Your task to perform on an android device: turn notification dots on Image 0: 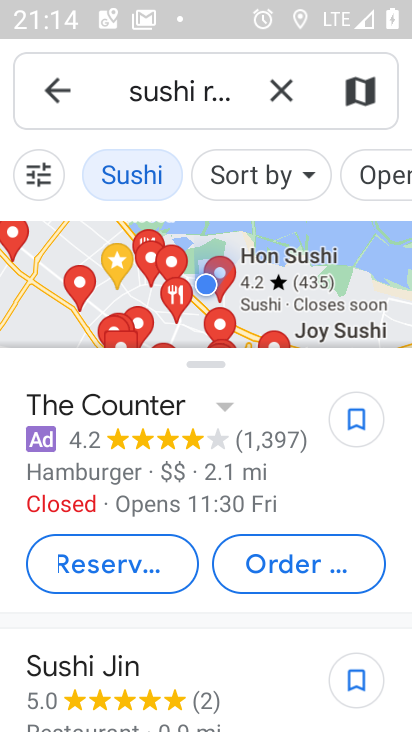
Step 0: press home button
Your task to perform on an android device: turn notification dots on Image 1: 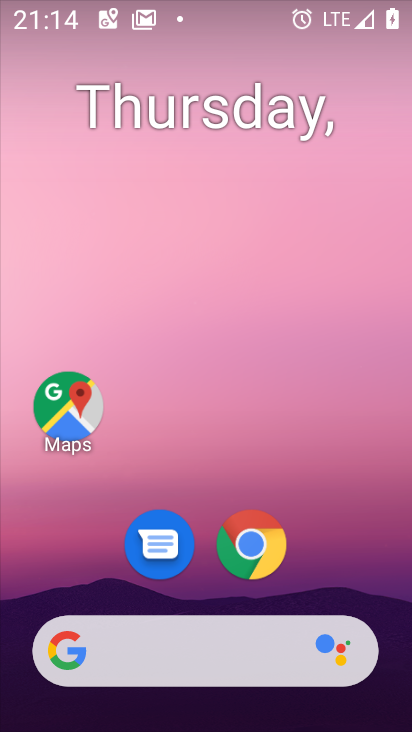
Step 1: drag from (208, 610) to (246, 10)
Your task to perform on an android device: turn notification dots on Image 2: 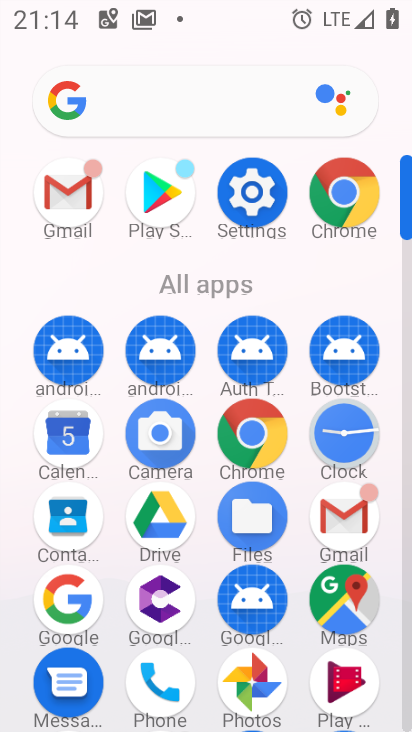
Step 2: click (264, 223)
Your task to perform on an android device: turn notification dots on Image 3: 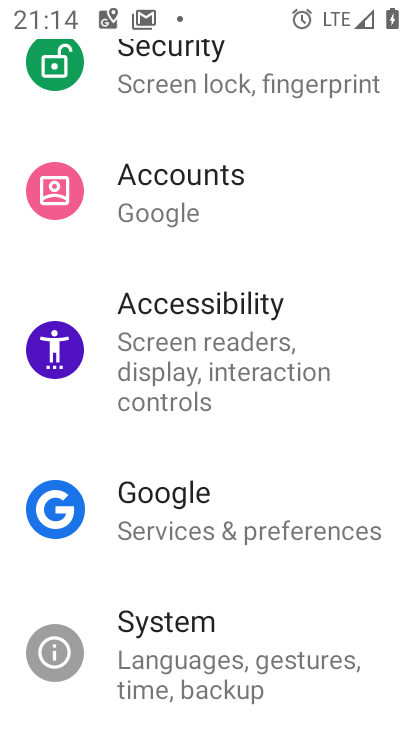
Step 3: drag from (261, 141) to (247, 486)
Your task to perform on an android device: turn notification dots on Image 4: 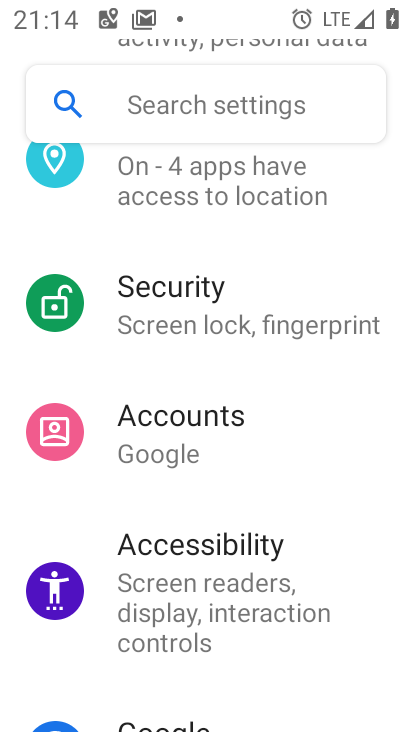
Step 4: drag from (246, 240) to (270, 614)
Your task to perform on an android device: turn notification dots on Image 5: 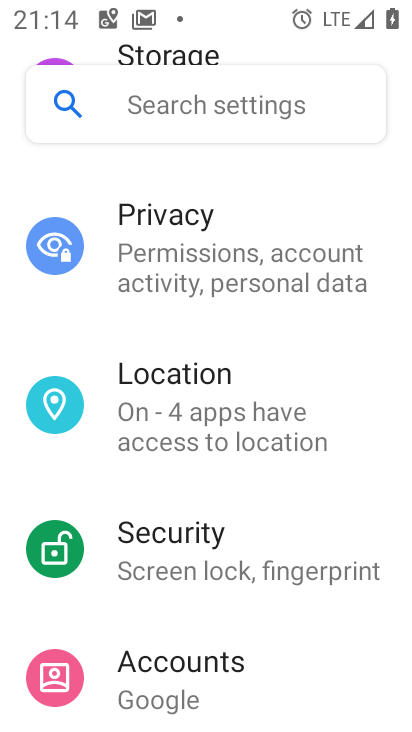
Step 5: drag from (189, 176) to (221, 630)
Your task to perform on an android device: turn notification dots on Image 6: 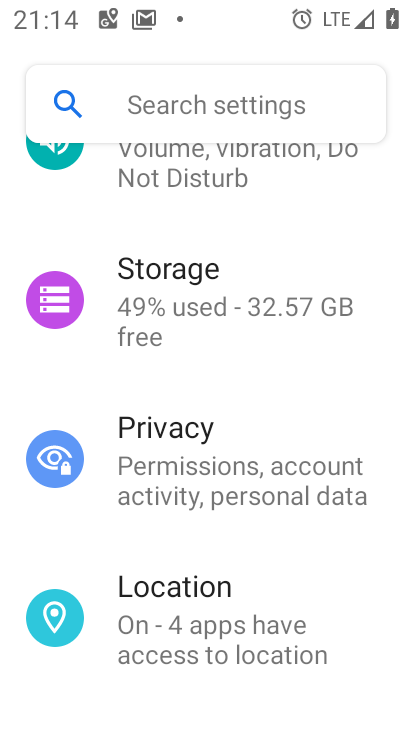
Step 6: drag from (167, 242) to (198, 621)
Your task to perform on an android device: turn notification dots on Image 7: 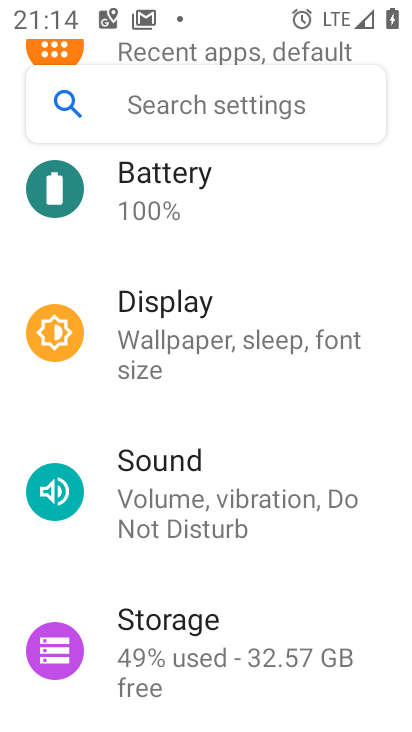
Step 7: drag from (162, 210) to (271, 610)
Your task to perform on an android device: turn notification dots on Image 8: 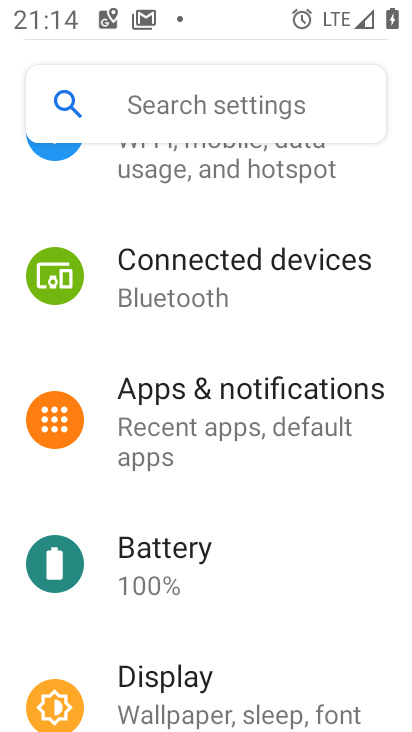
Step 8: click (231, 367)
Your task to perform on an android device: turn notification dots on Image 9: 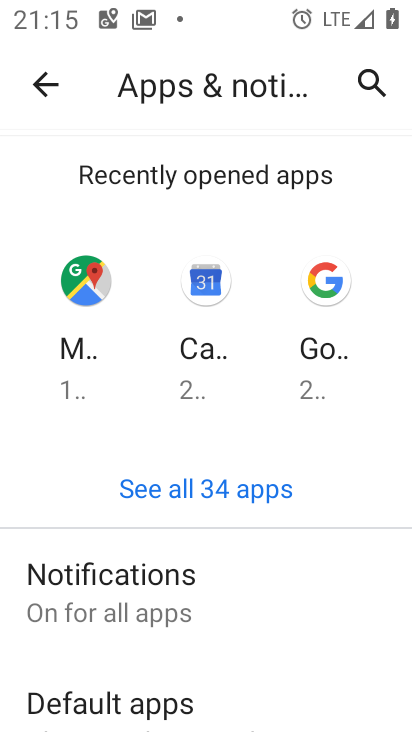
Step 9: click (113, 617)
Your task to perform on an android device: turn notification dots on Image 10: 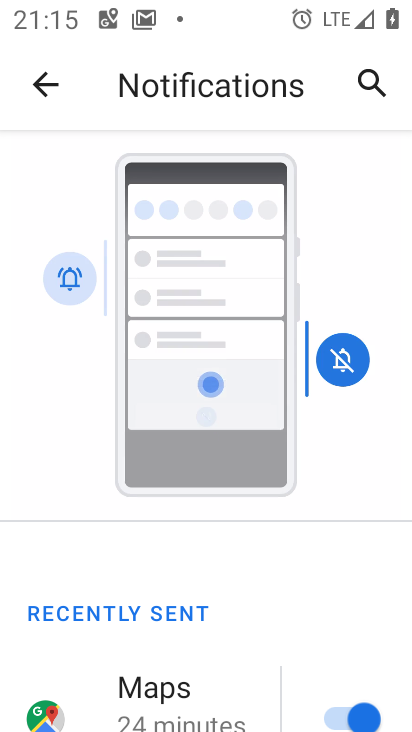
Step 10: drag from (113, 617) to (216, 153)
Your task to perform on an android device: turn notification dots on Image 11: 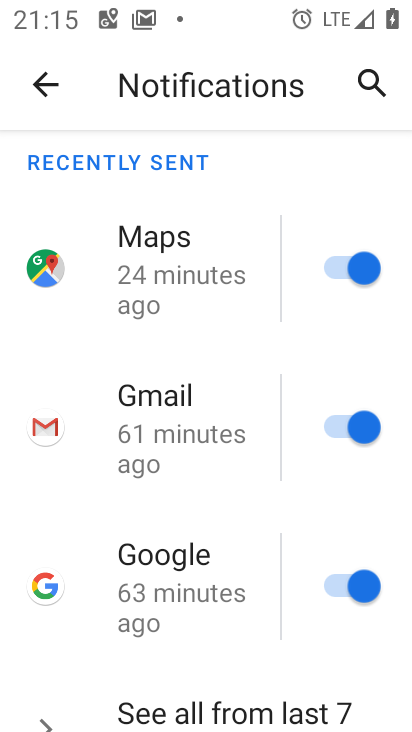
Step 11: drag from (226, 677) to (265, 3)
Your task to perform on an android device: turn notification dots on Image 12: 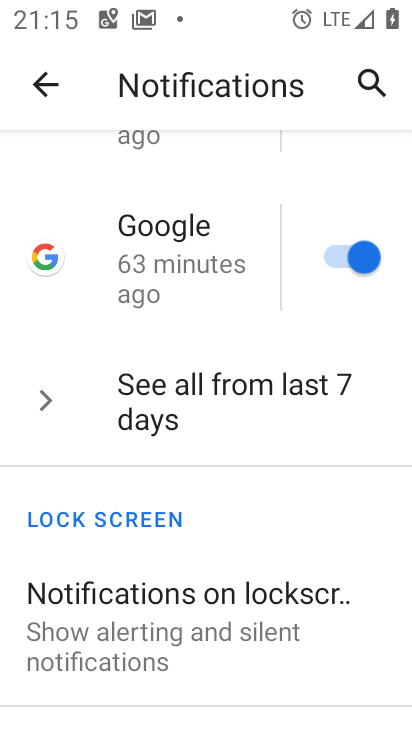
Step 12: click (183, 595)
Your task to perform on an android device: turn notification dots on Image 13: 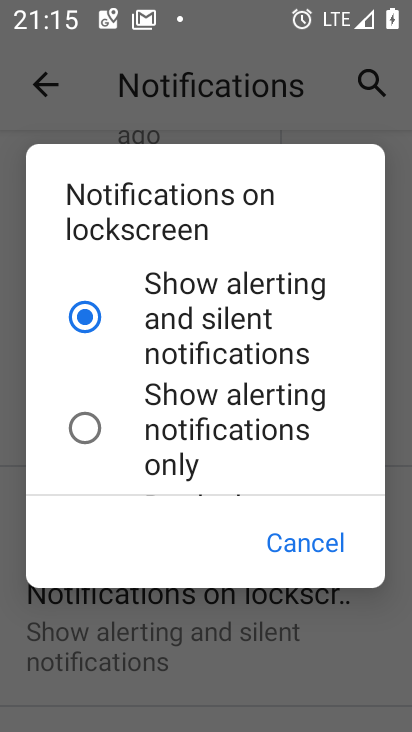
Step 13: task complete